Your task to perform on an android device: Open settings Image 0: 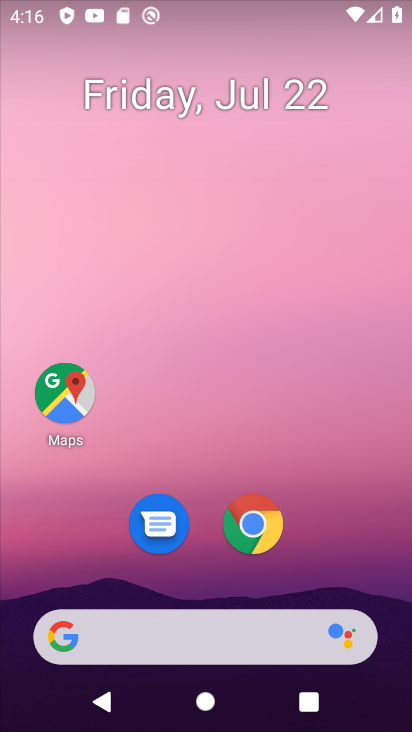
Step 0: drag from (331, 546) to (300, 37)
Your task to perform on an android device: Open settings Image 1: 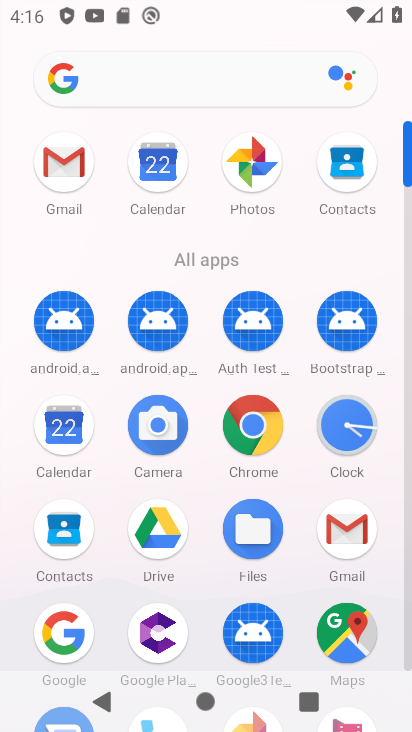
Step 1: drag from (206, 351) to (216, 141)
Your task to perform on an android device: Open settings Image 2: 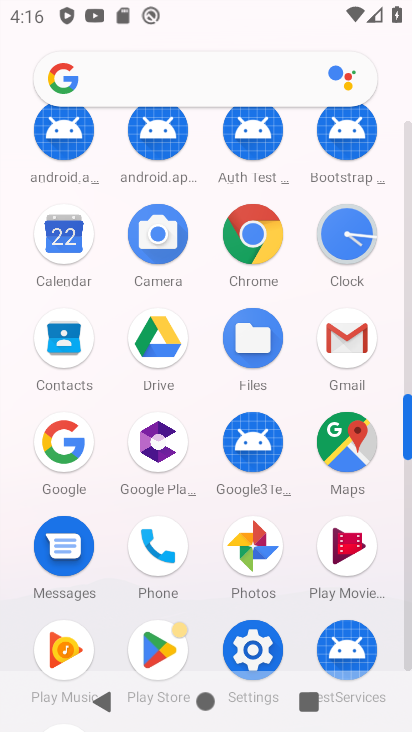
Step 2: click (263, 642)
Your task to perform on an android device: Open settings Image 3: 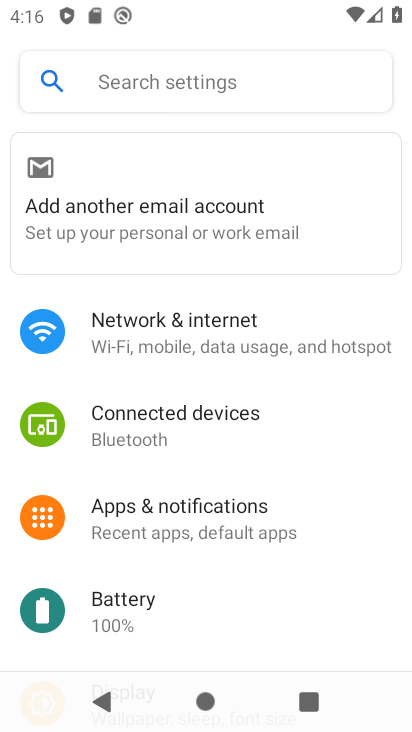
Step 3: task complete